Your task to perform on an android device: turn off wifi Image 0: 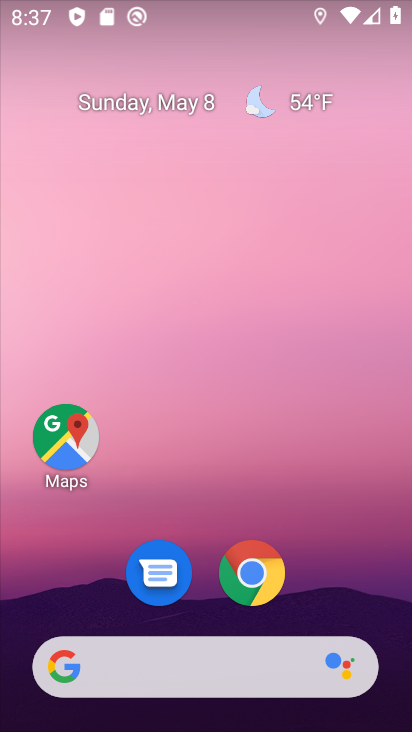
Step 0: drag from (210, 729) to (203, 210)
Your task to perform on an android device: turn off wifi Image 1: 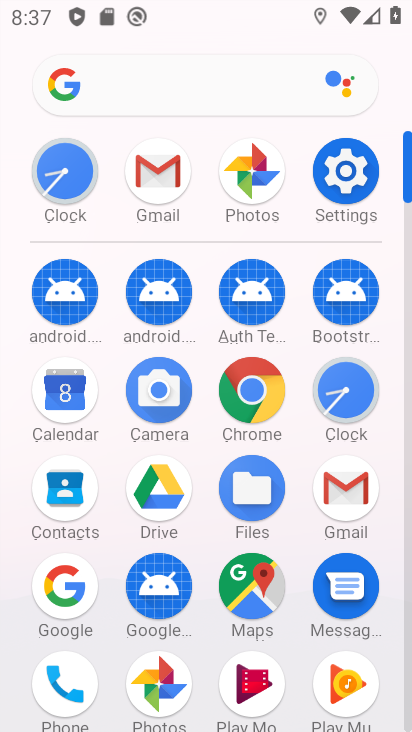
Step 1: click (341, 162)
Your task to perform on an android device: turn off wifi Image 2: 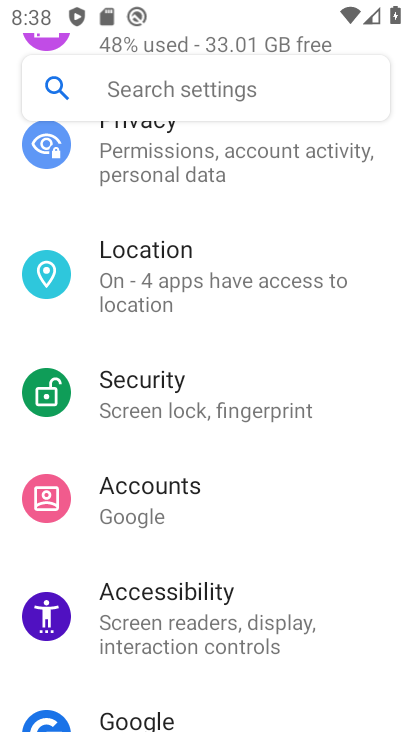
Step 2: drag from (301, 203) to (322, 617)
Your task to perform on an android device: turn off wifi Image 3: 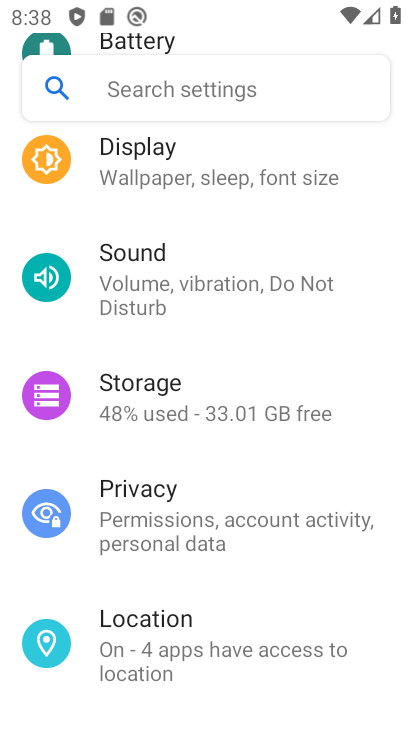
Step 3: drag from (274, 154) to (294, 600)
Your task to perform on an android device: turn off wifi Image 4: 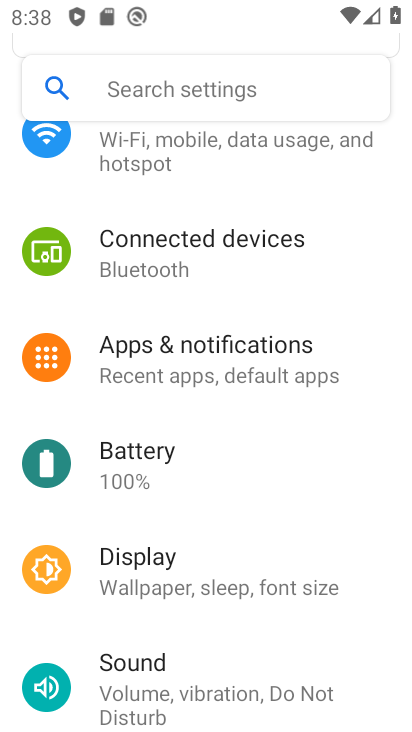
Step 4: drag from (245, 162) to (244, 579)
Your task to perform on an android device: turn off wifi Image 5: 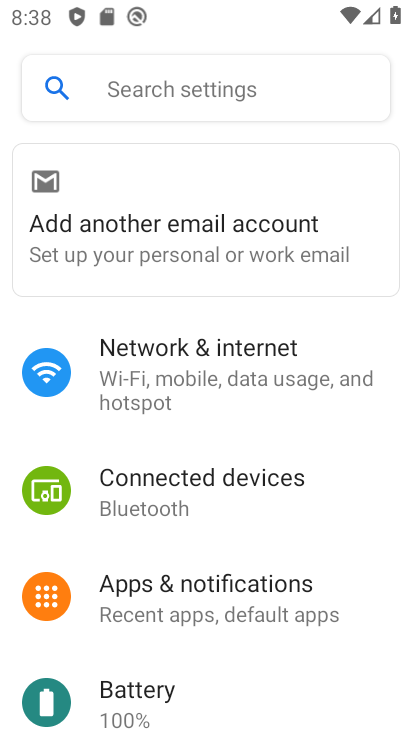
Step 5: click (144, 368)
Your task to perform on an android device: turn off wifi Image 6: 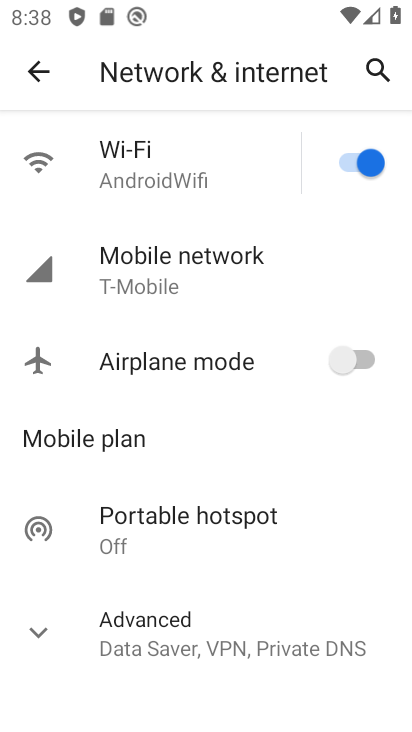
Step 6: click (342, 161)
Your task to perform on an android device: turn off wifi Image 7: 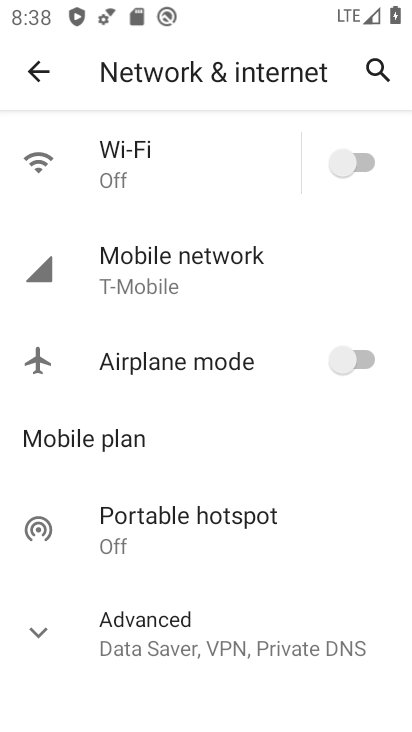
Step 7: task complete